Your task to perform on an android device: refresh tabs in the chrome app Image 0: 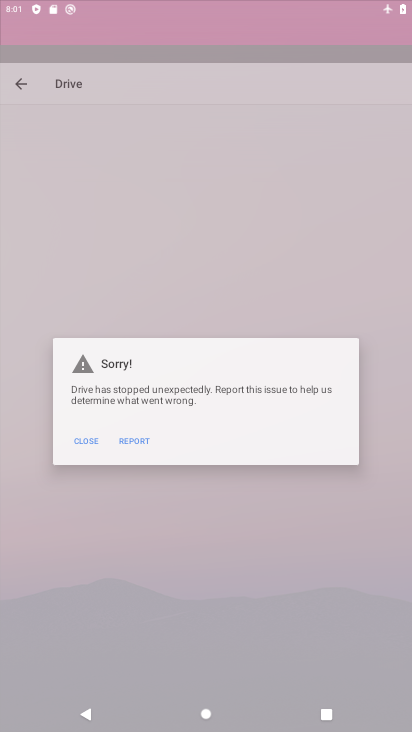
Step 0: press home button
Your task to perform on an android device: refresh tabs in the chrome app Image 1: 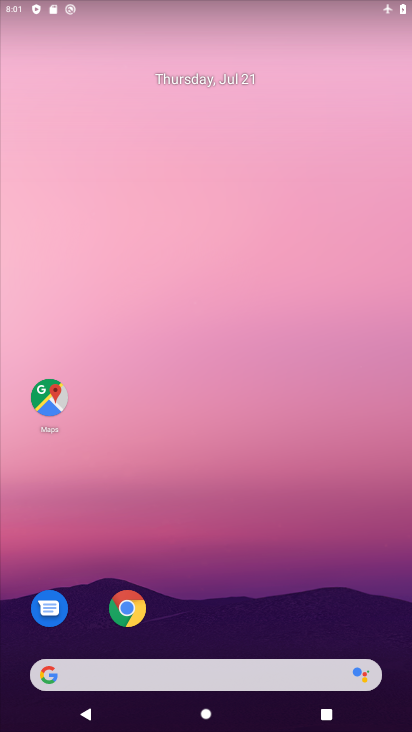
Step 1: click (124, 602)
Your task to perform on an android device: refresh tabs in the chrome app Image 2: 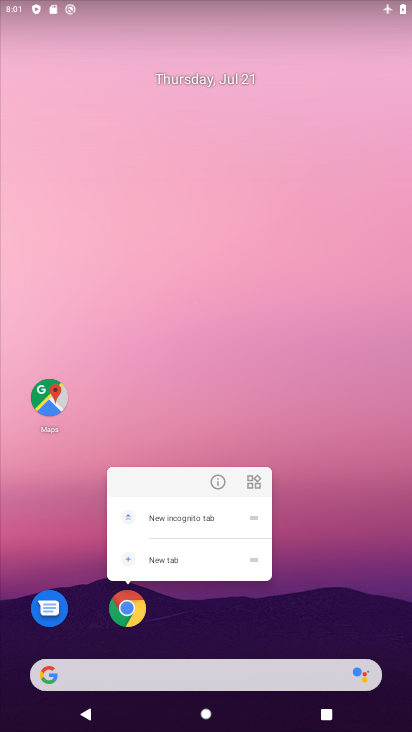
Step 2: click (124, 602)
Your task to perform on an android device: refresh tabs in the chrome app Image 3: 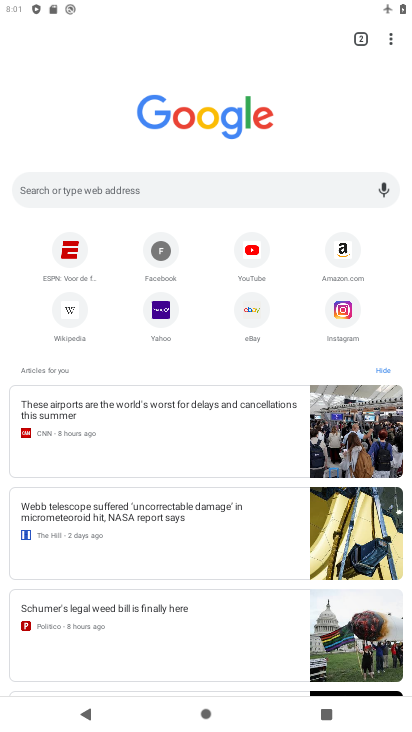
Step 3: click (390, 37)
Your task to perform on an android device: refresh tabs in the chrome app Image 4: 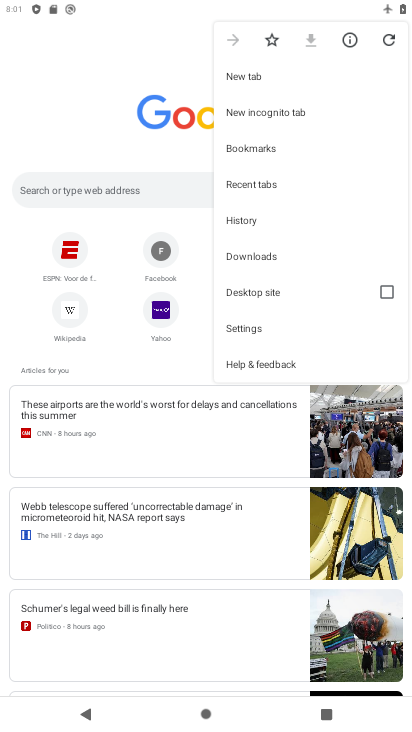
Step 4: click (390, 37)
Your task to perform on an android device: refresh tabs in the chrome app Image 5: 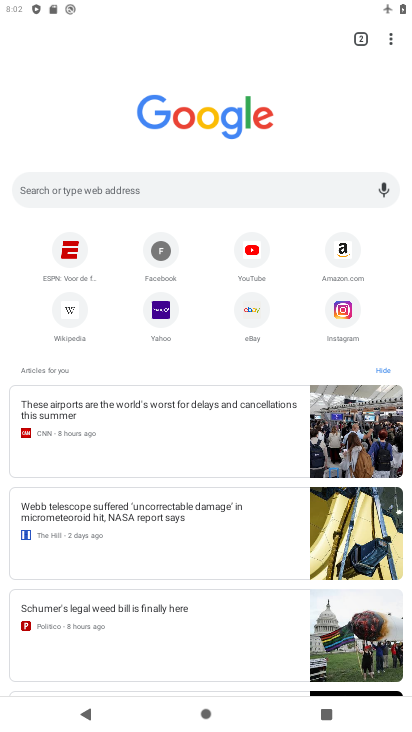
Step 5: task complete